Your task to perform on an android device: turn off improve location accuracy Image 0: 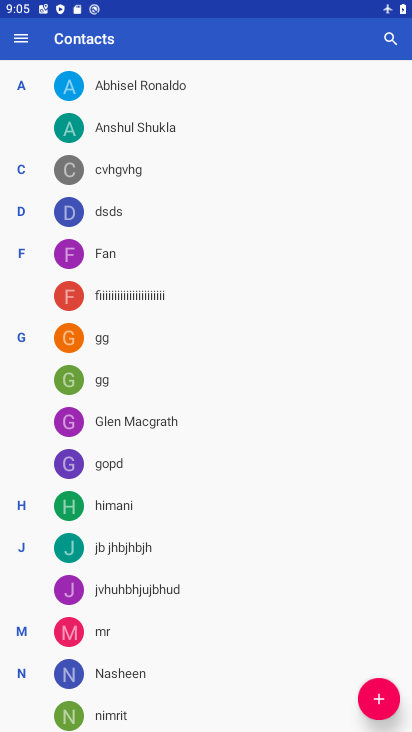
Step 0: press home button
Your task to perform on an android device: turn off improve location accuracy Image 1: 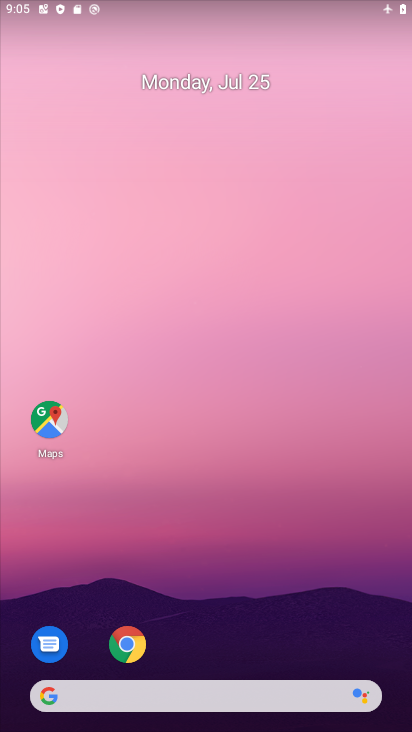
Step 1: drag from (251, 601) to (230, 126)
Your task to perform on an android device: turn off improve location accuracy Image 2: 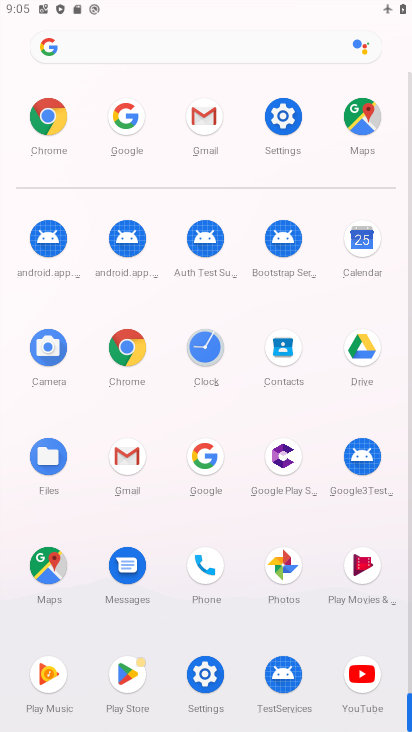
Step 2: click (213, 667)
Your task to perform on an android device: turn off improve location accuracy Image 3: 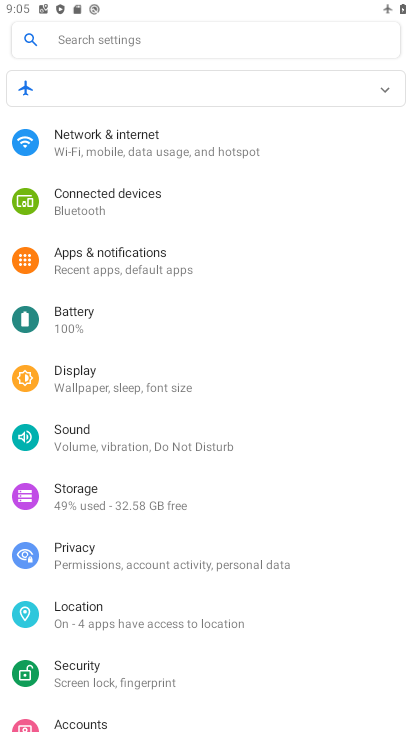
Step 3: click (159, 611)
Your task to perform on an android device: turn off improve location accuracy Image 4: 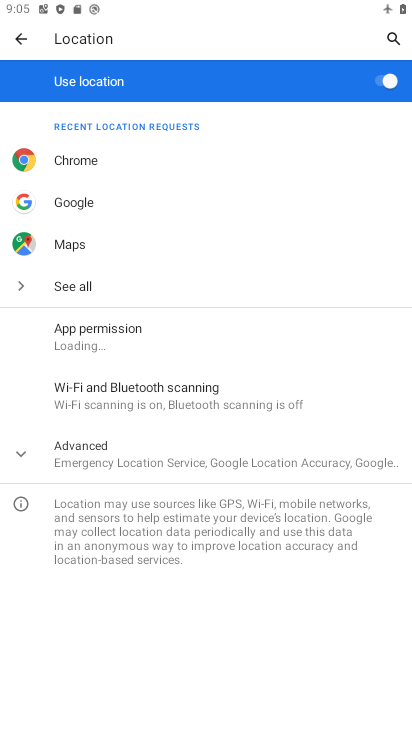
Step 4: click (169, 444)
Your task to perform on an android device: turn off improve location accuracy Image 5: 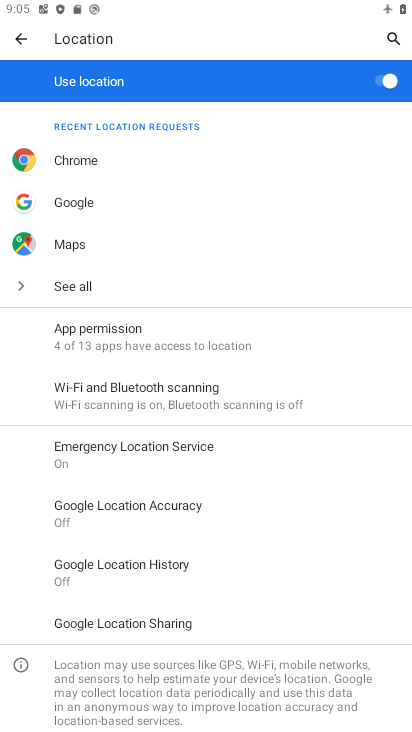
Step 5: click (190, 514)
Your task to perform on an android device: turn off improve location accuracy Image 6: 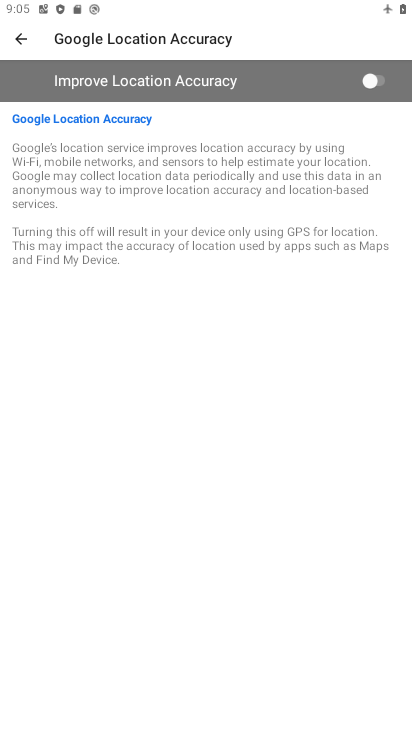
Step 6: task complete